Your task to perform on an android device: turn on bluetooth scan Image 0: 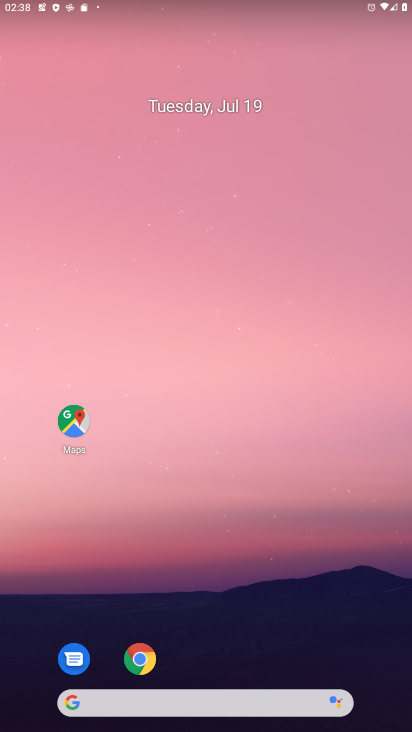
Step 0: press home button
Your task to perform on an android device: turn on bluetooth scan Image 1: 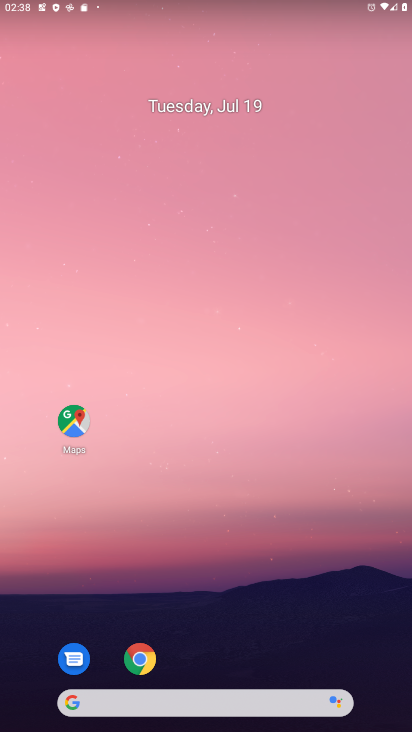
Step 1: drag from (268, 667) to (259, 254)
Your task to perform on an android device: turn on bluetooth scan Image 2: 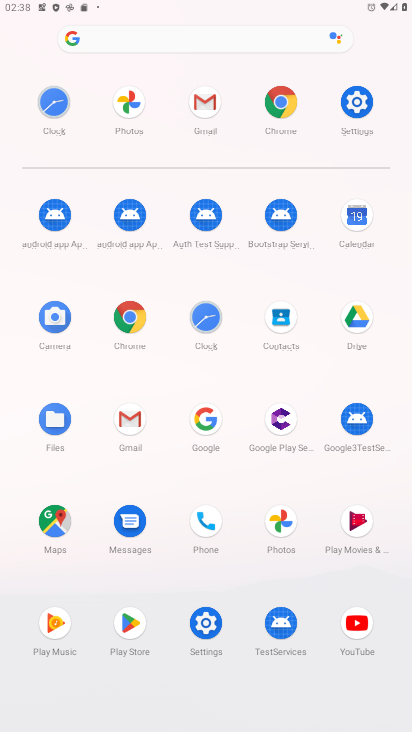
Step 2: click (334, 105)
Your task to perform on an android device: turn on bluetooth scan Image 3: 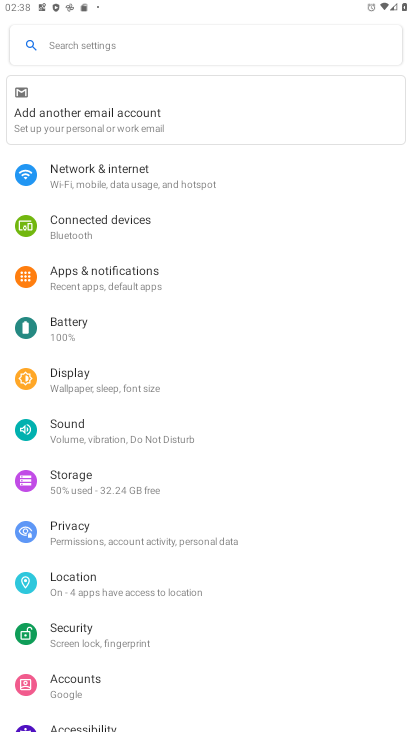
Step 3: drag from (203, 714) to (185, 382)
Your task to perform on an android device: turn on bluetooth scan Image 4: 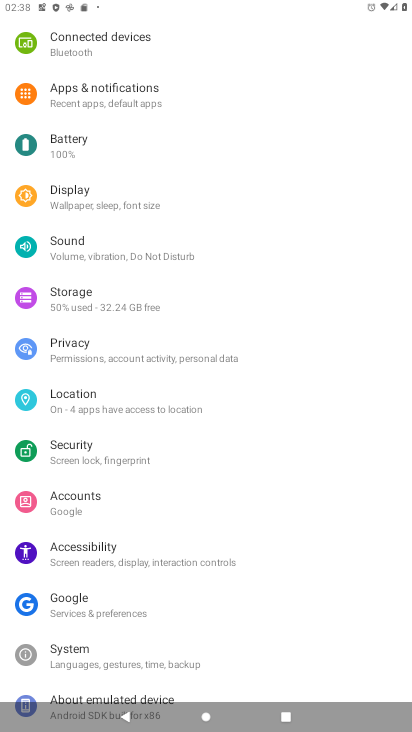
Step 4: click (102, 412)
Your task to perform on an android device: turn on bluetooth scan Image 5: 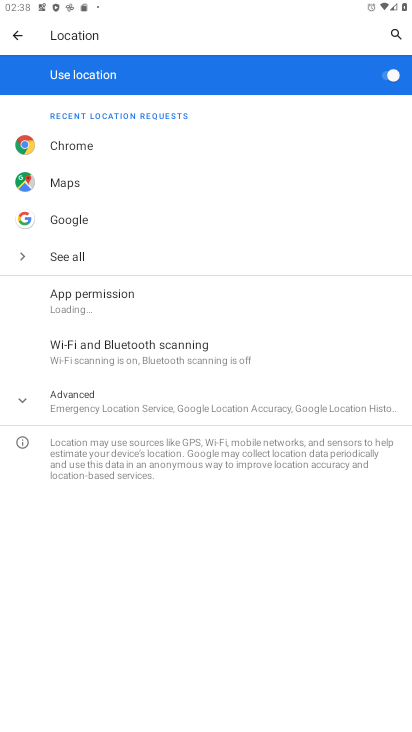
Step 5: click (135, 345)
Your task to perform on an android device: turn on bluetooth scan Image 6: 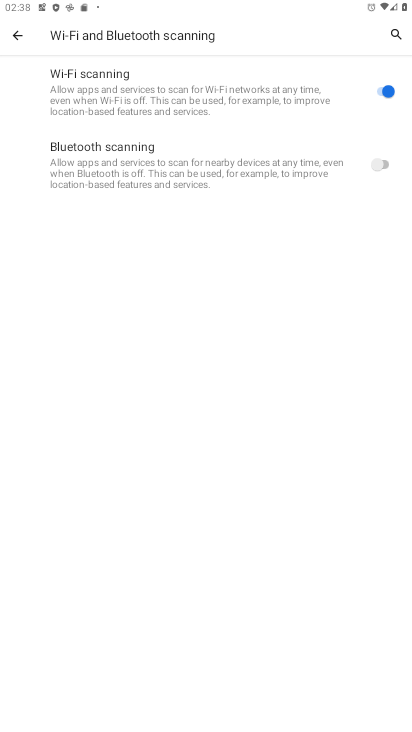
Step 6: click (214, 167)
Your task to perform on an android device: turn on bluetooth scan Image 7: 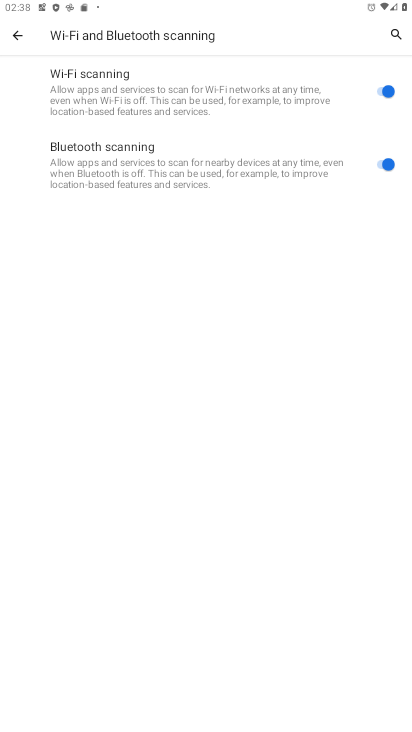
Step 7: task complete